Your task to perform on an android device: What's the weather? Image 0: 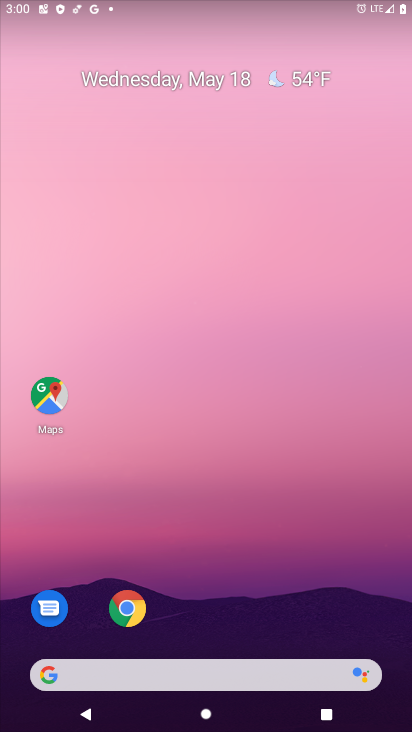
Step 0: click (300, 78)
Your task to perform on an android device: What's the weather? Image 1: 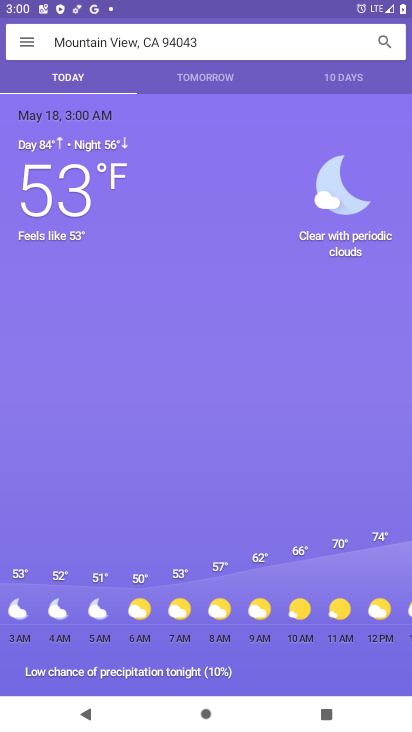
Step 1: task complete